Your task to perform on an android device: change timer sound Image 0: 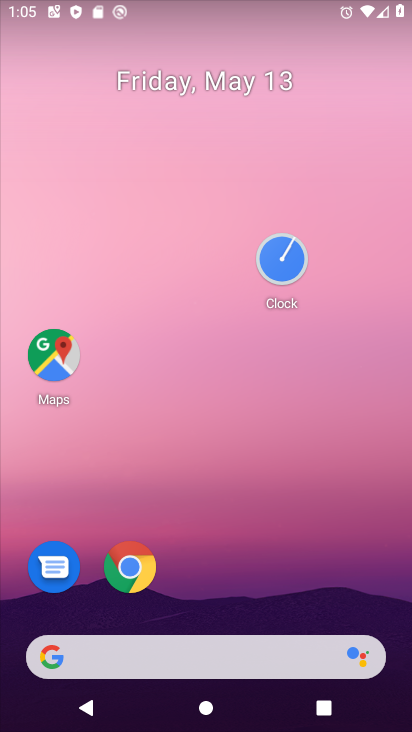
Step 0: drag from (245, 612) to (241, 119)
Your task to perform on an android device: change timer sound Image 1: 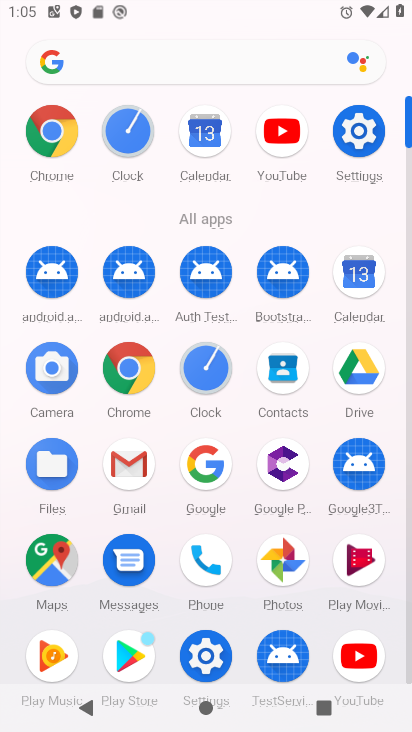
Step 1: click (135, 143)
Your task to perform on an android device: change timer sound Image 2: 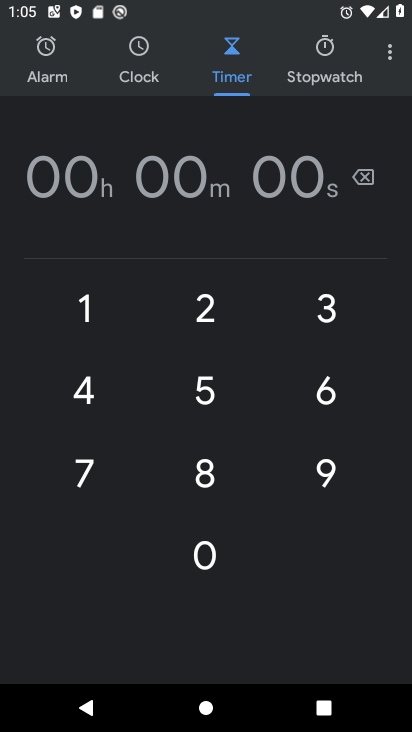
Step 2: click (380, 35)
Your task to perform on an android device: change timer sound Image 3: 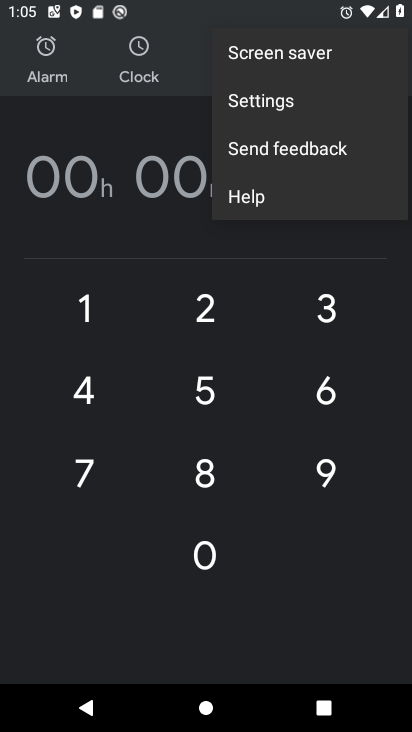
Step 3: click (327, 123)
Your task to perform on an android device: change timer sound Image 4: 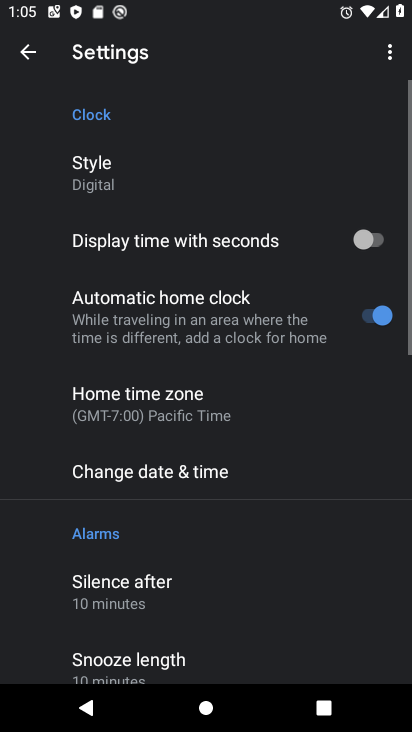
Step 4: drag from (196, 611) to (233, 246)
Your task to perform on an android device: change timer sound Image 5: 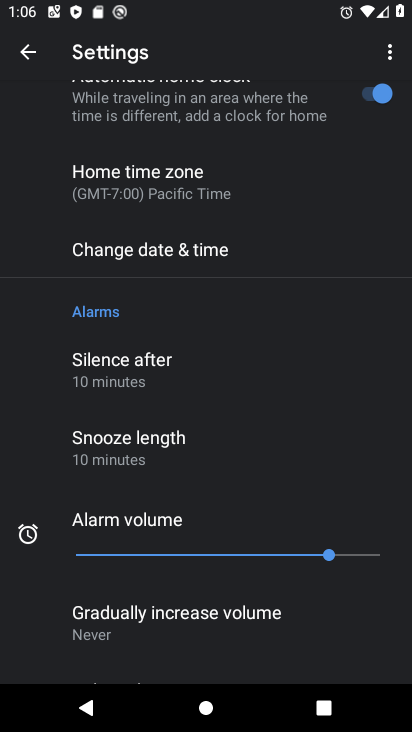
Step 5: drag from (173, 565) to (234, 257)
Your task to perform on an android device: change timer sound Image 6: 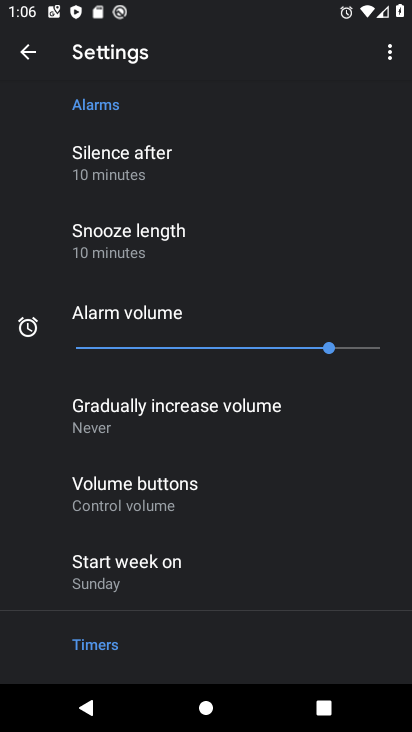
Step 6: drag from (211, 573) to (220, 382)
Your task to perform on an android device: change timer sound Image 7: 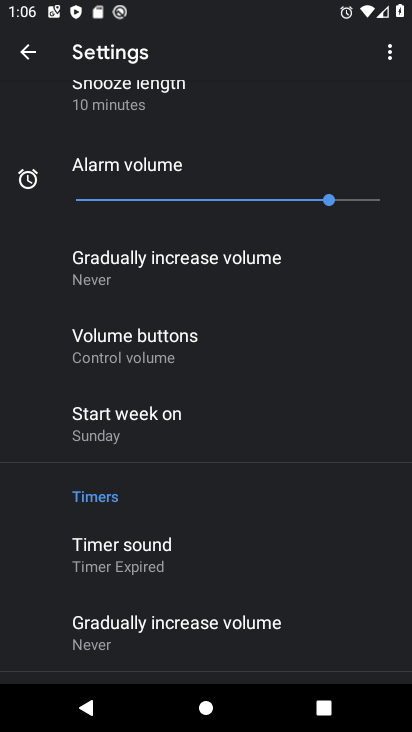
Step 7: click (176, 555)
Your task to perform on an android device: change timer sound Image 8: 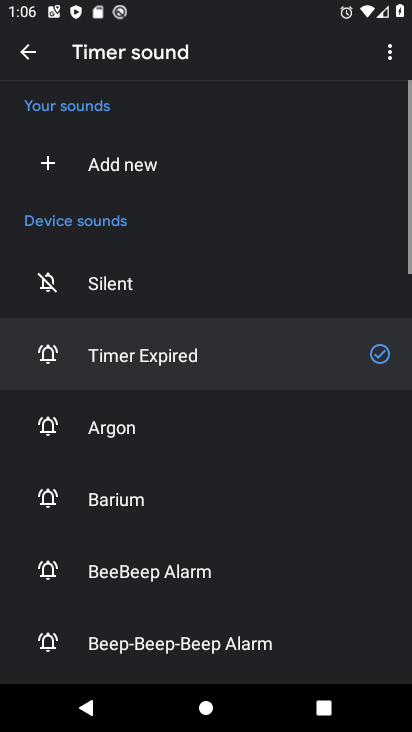
Step 8: click (211, 551)
Your task to perform on an android device: change timer sound Image 9: 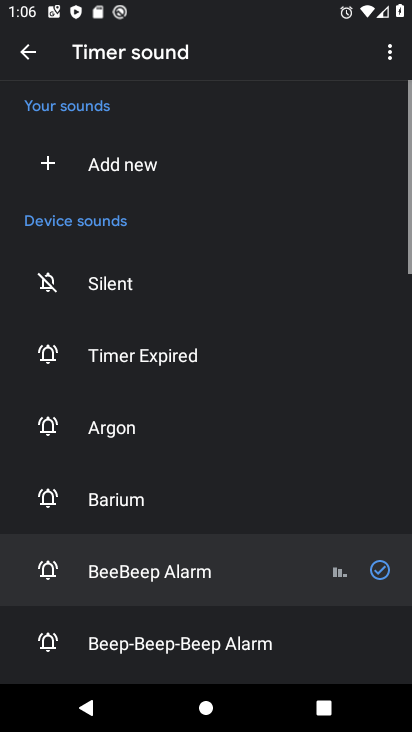
Step 9: task complete